Your task to perform on an android device: Show me the best 1080p monitor on Target.com Image 0: 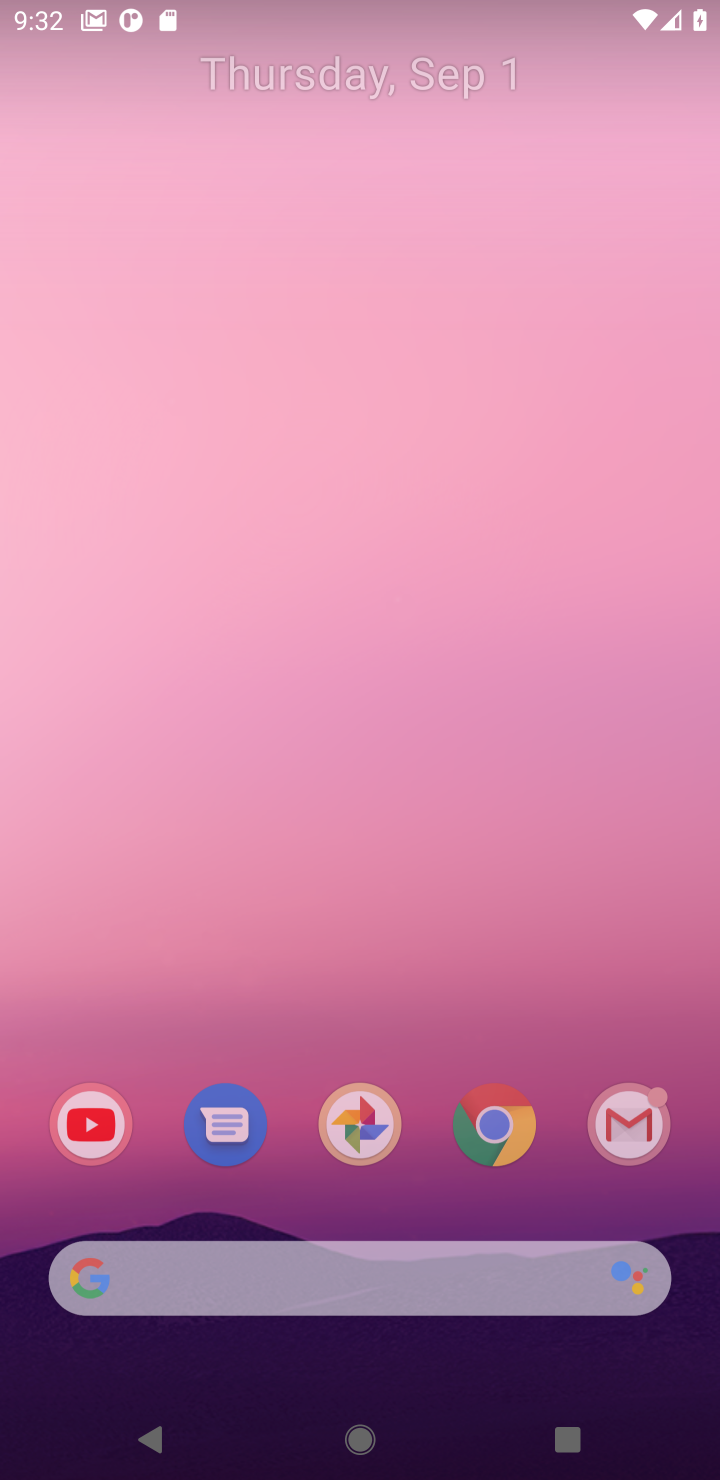
Step 0: press home button
Your task to perform on an android device: Show me the best 1080p monitor on Target.com Image 1: 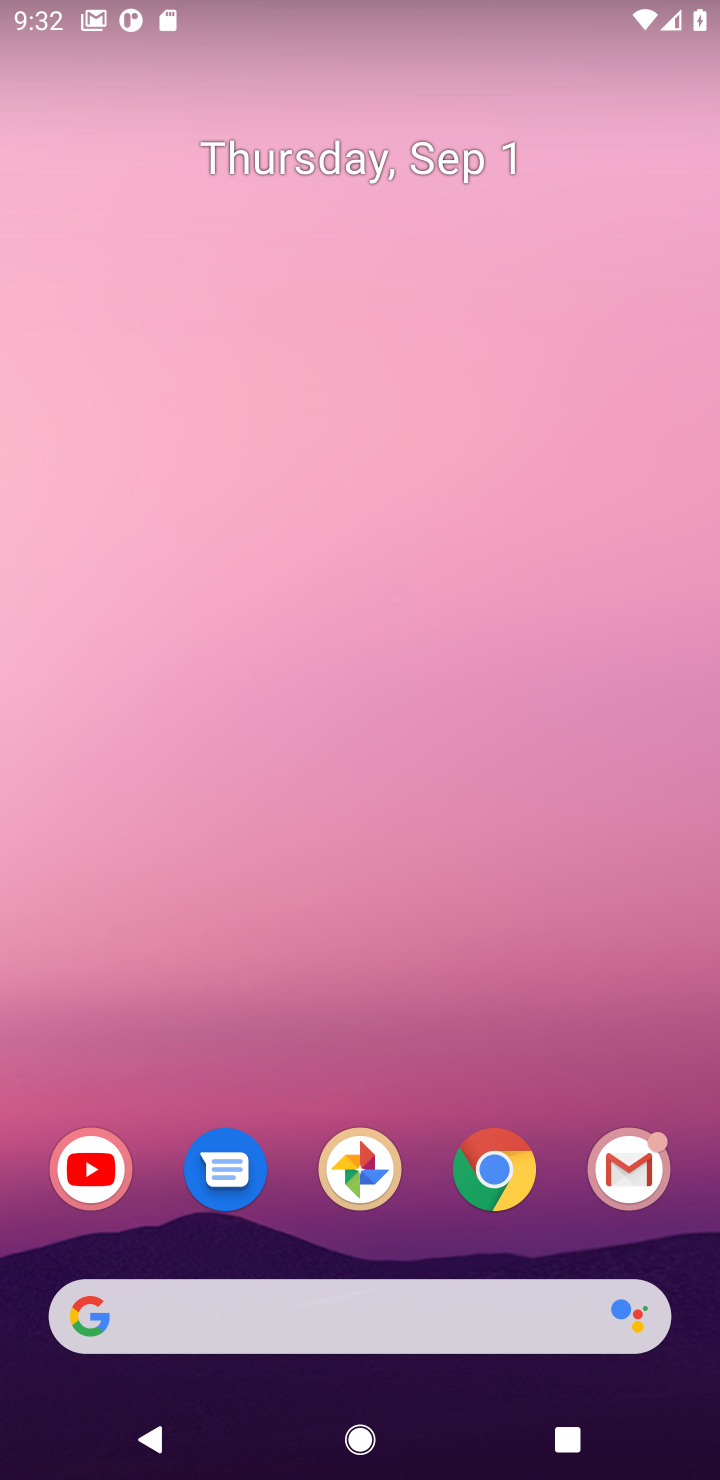
Step 1: click (490, 1160)
Your task to perform on an android device: Show me the best 1080p monitor on Target.com Image 2: 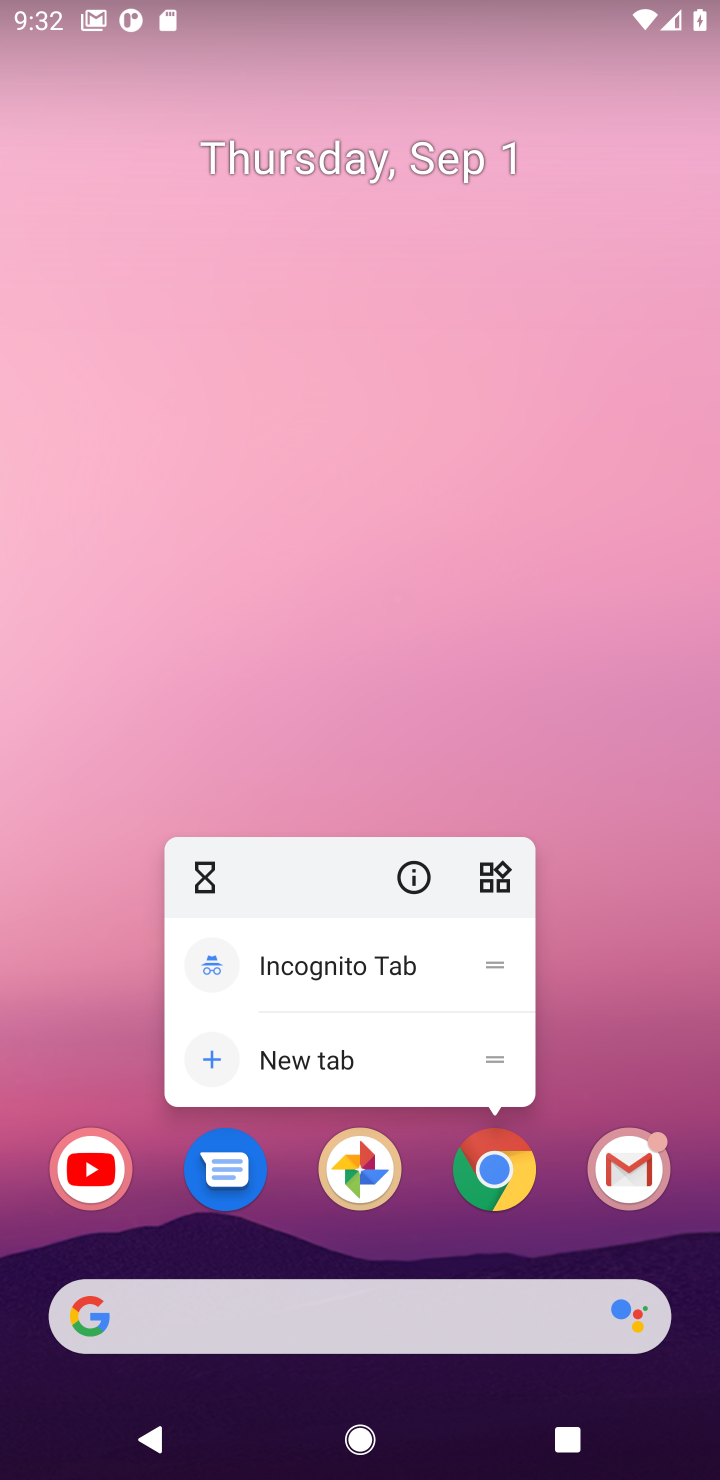
Step 2: click (490, 1160)
Your task to perform on an android device: Show me the best 1080p monitor on Target.com Image 3: 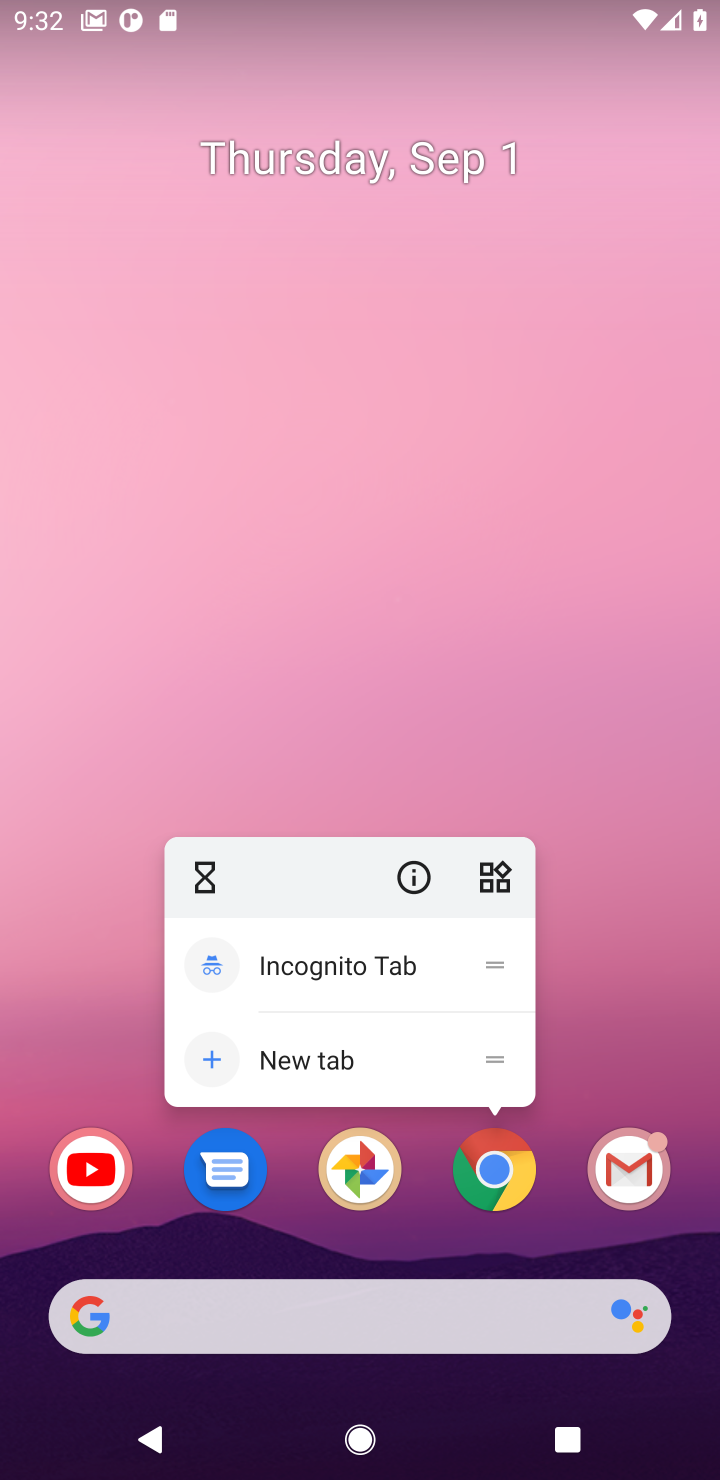
Step 3: click (490, 1160)
Your task to perform on an android device: Show me the best 1080p monitor on Target.com Image 4: 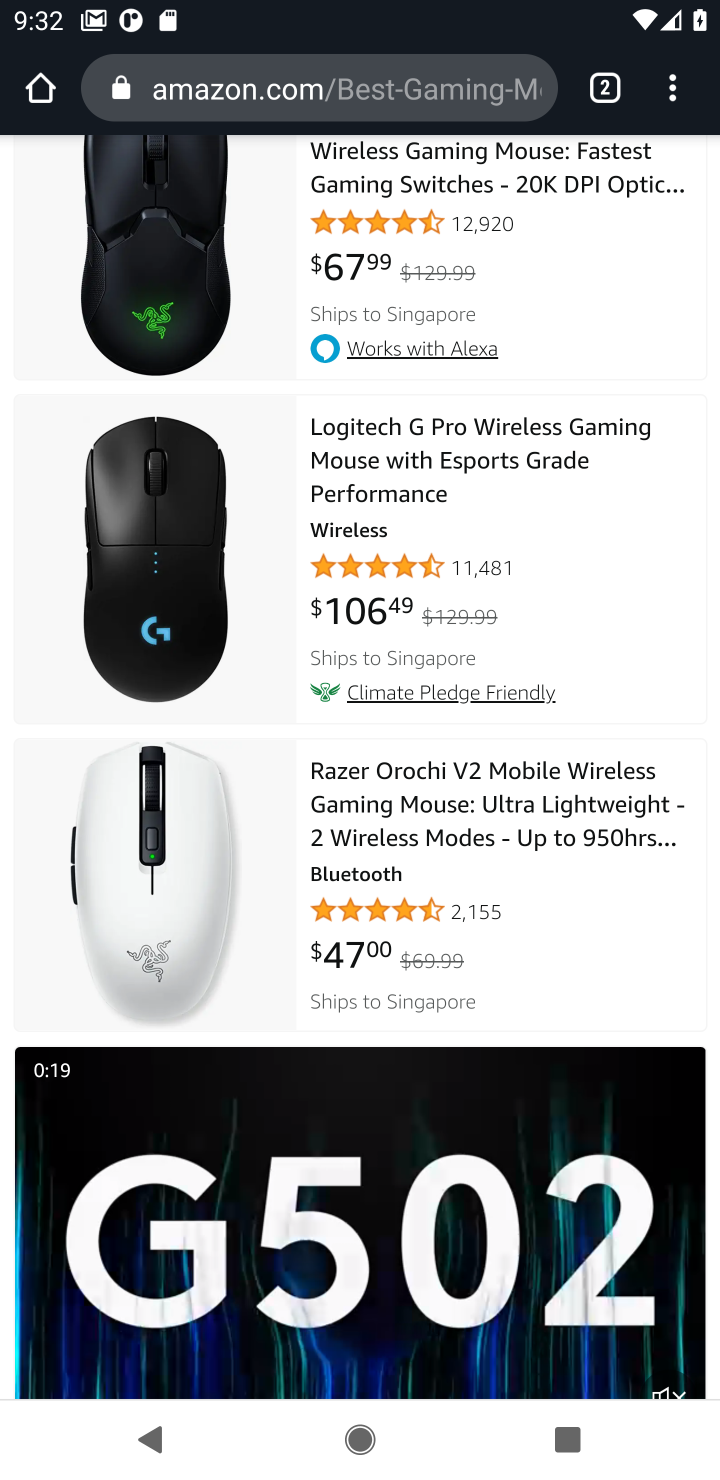
Step 4: click (415, 74)
Your task to perform on an android device: Show me the best 1080p monitor on Target.com Image 5: 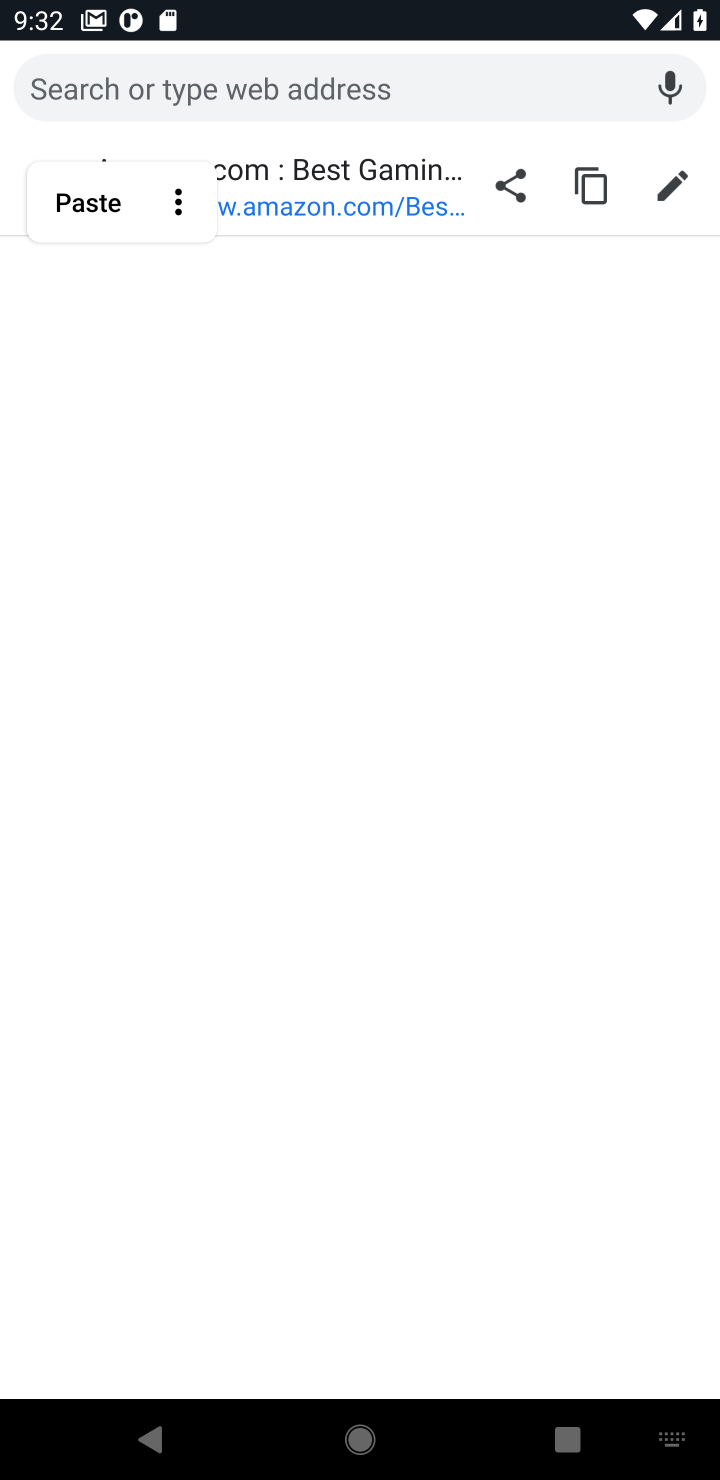
Step 5: type "best 1080p monitor on Target.com"
Your task to perform on an android device: Show me the best 1080p monitor on Target.com Image 6: 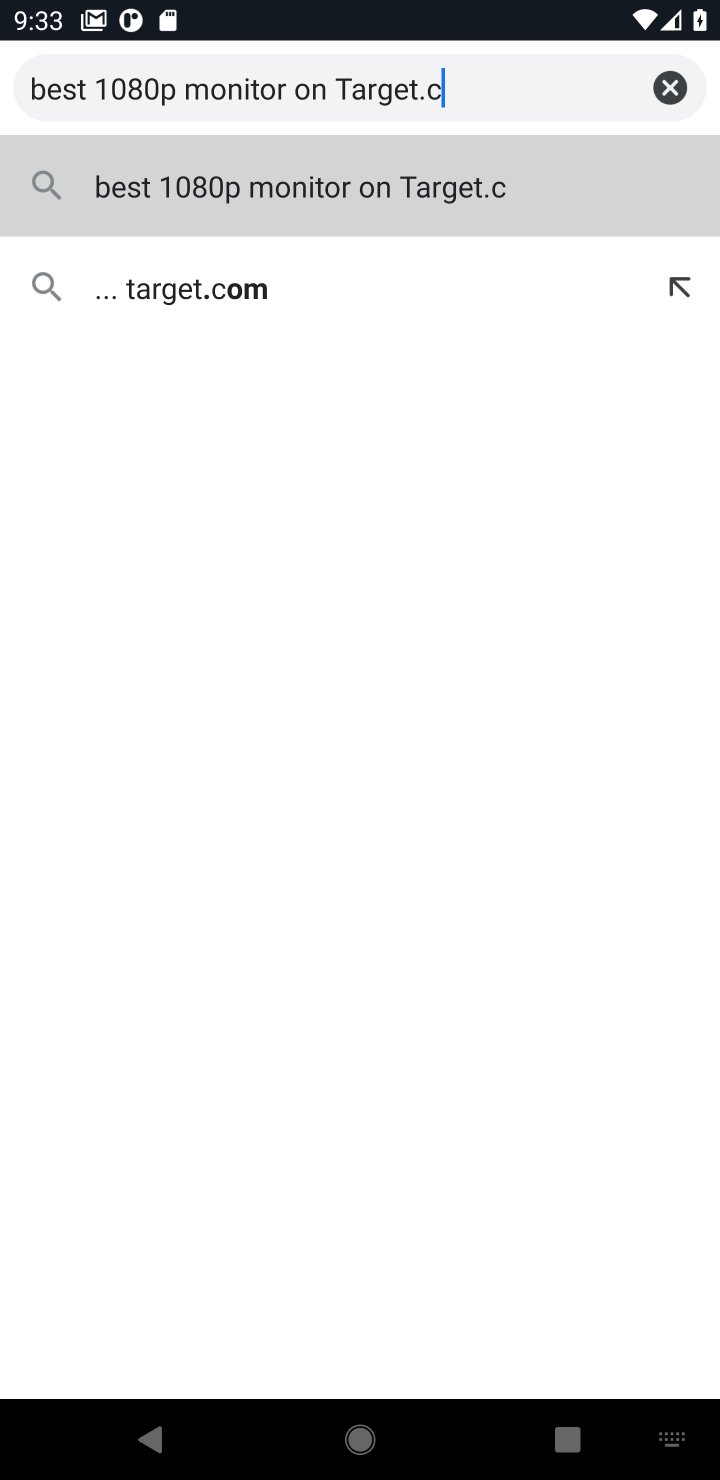
Step 6: type "om"
Your task to perform on an android device: Show me the best 1080p monitor on Target.com Image 7: 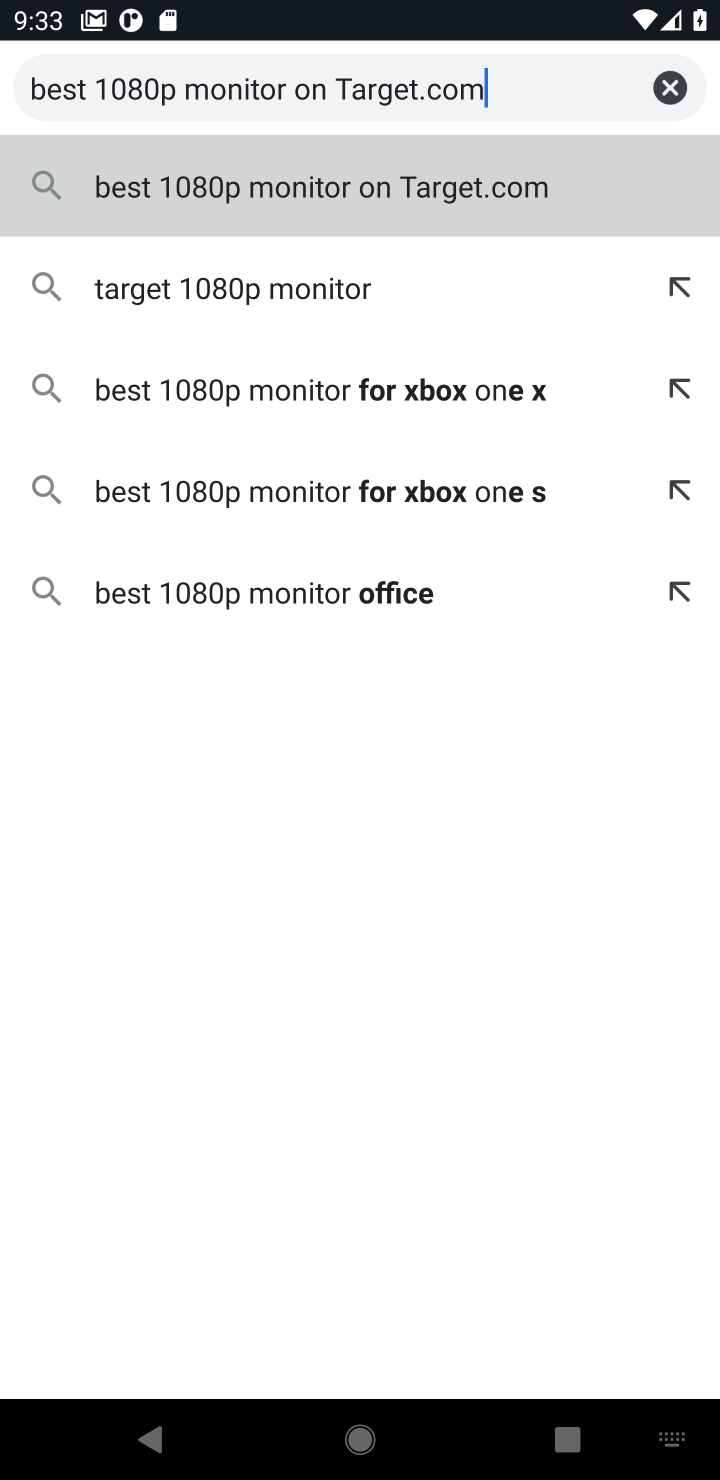
Step 7: click (282, 198)
Your task to perform on an android device: Show me the best 1080p monitor on Target.com Image 8: 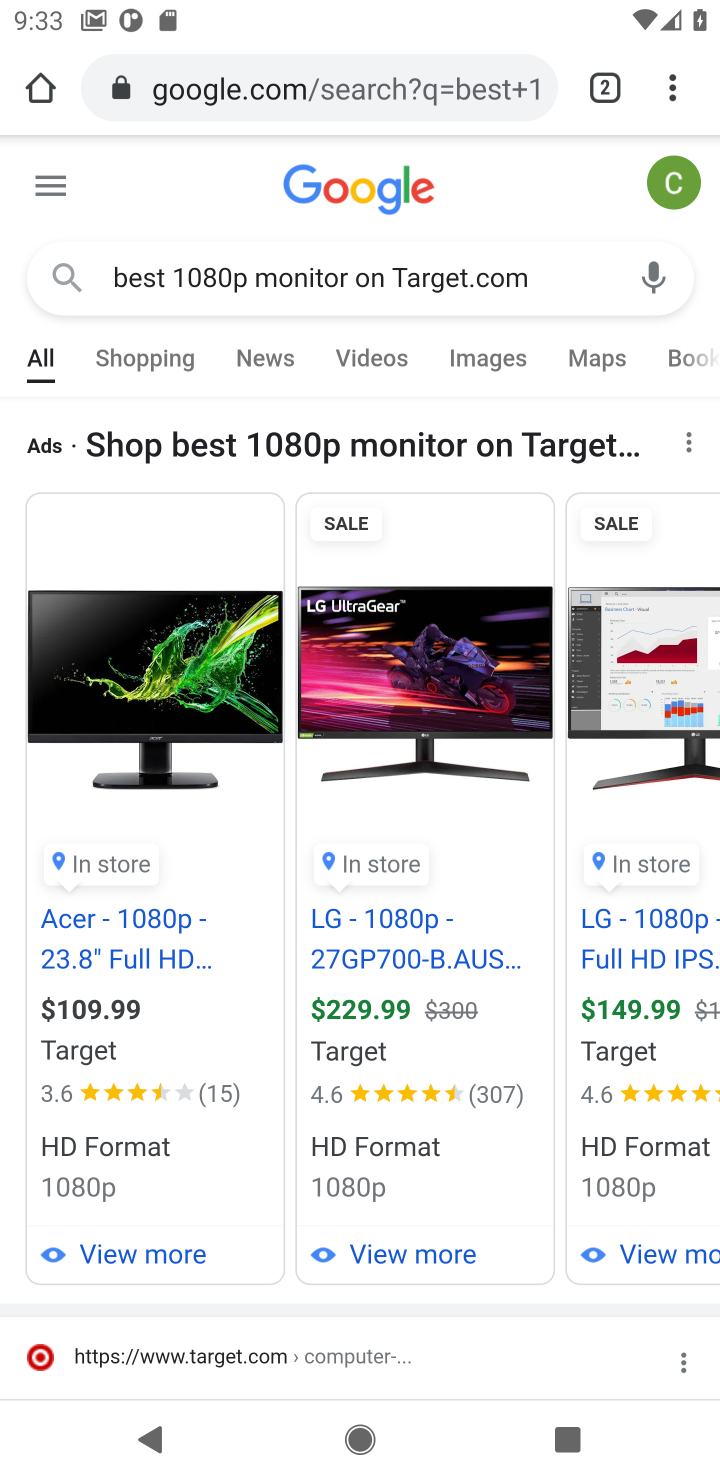
Step 8: drag from (287, 1308) to (263, 577)
Your task to perform on an android device: Show me the best 1080p monitor on Target.com Image 9: 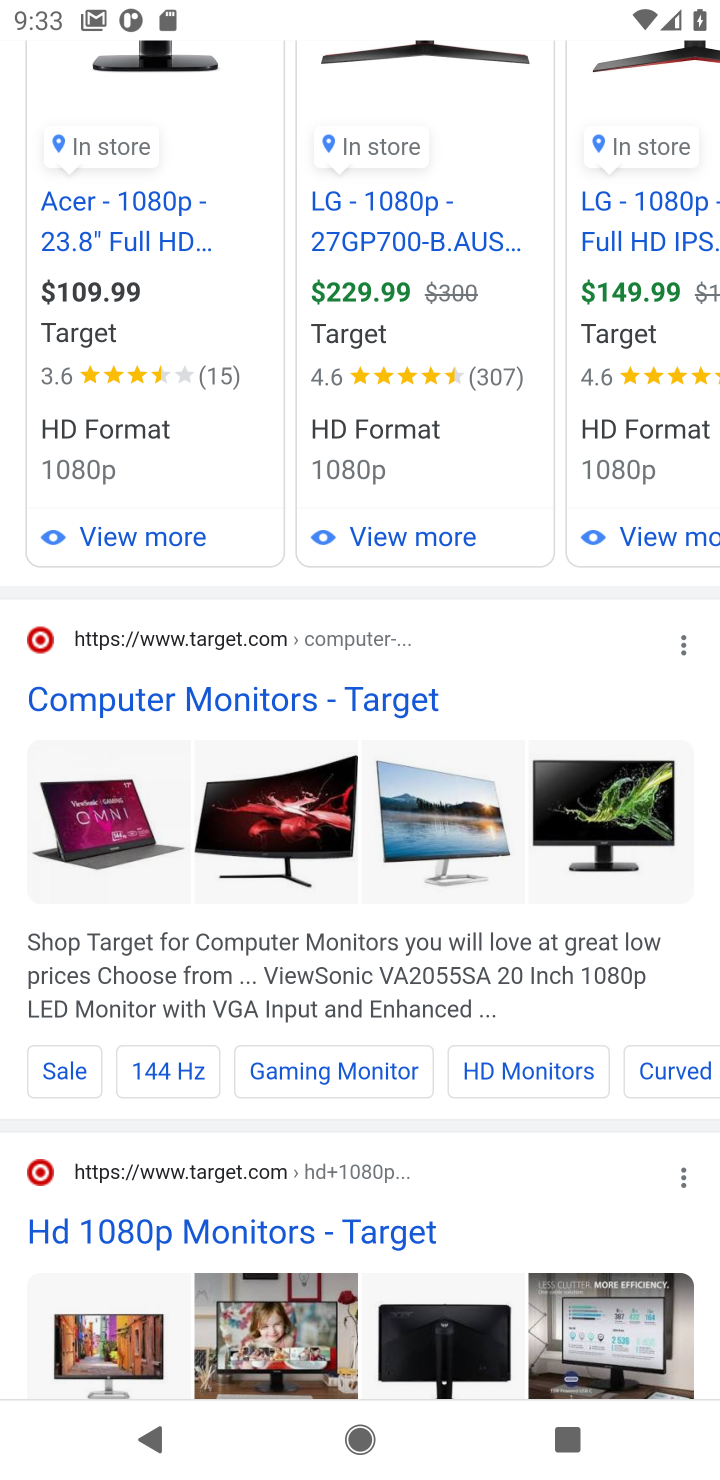
Step 9: click (252, 1230)
Your task to perform on an android device: Show me the best 1080p monitor on Target.com Image 10: 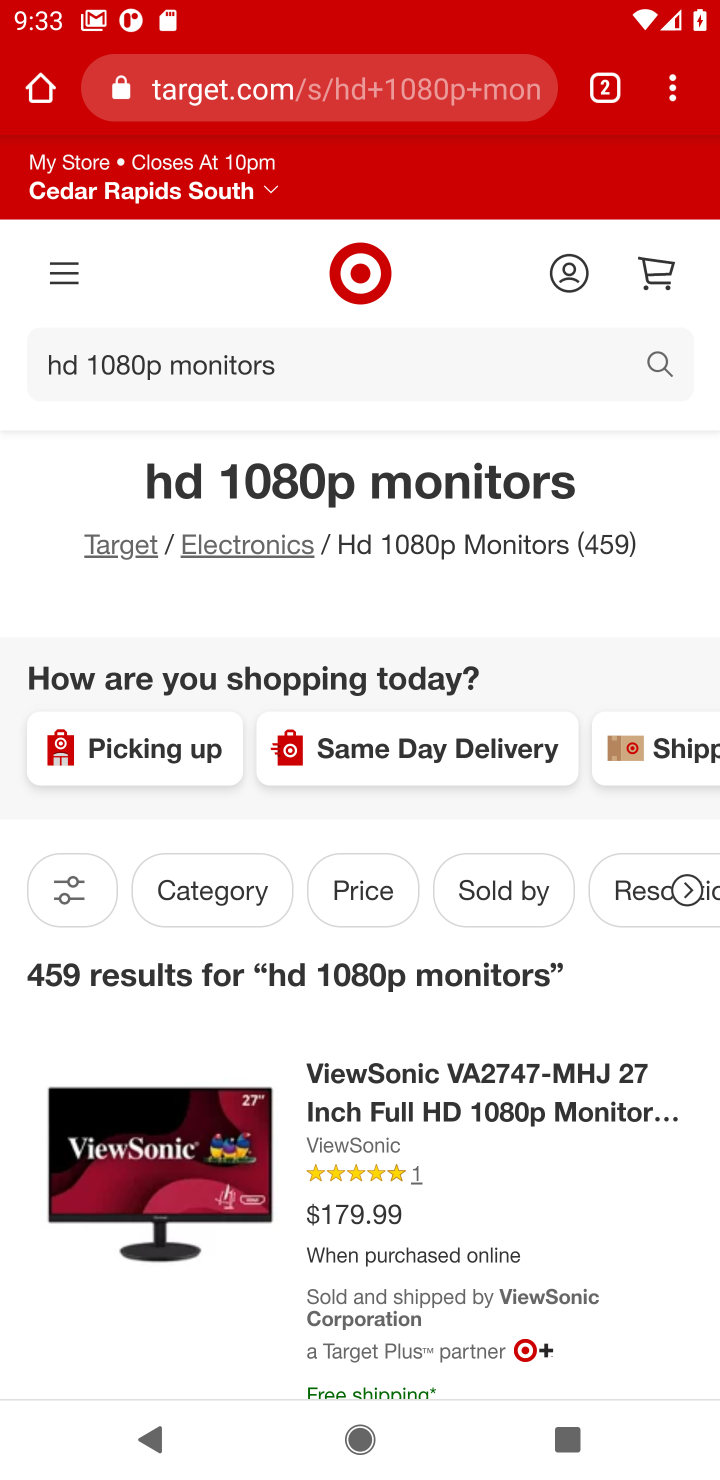
Step 10: task complete